Your task to perform on an android device: Open Chrome and go to settings Image 0: 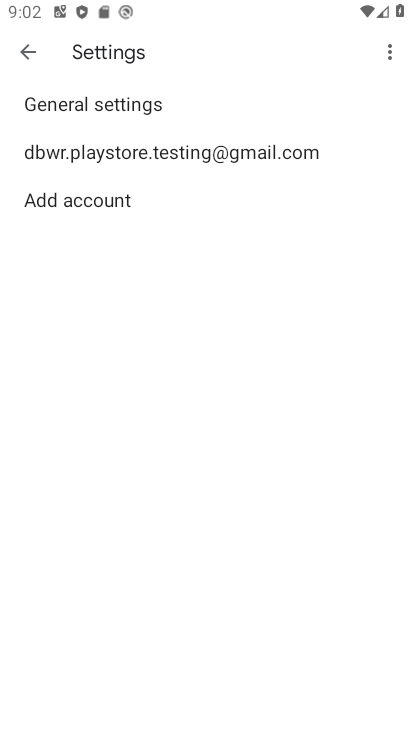
Step 0: press home button
Your task to perform on an android device: Open Chrome and go to settings Image 1: 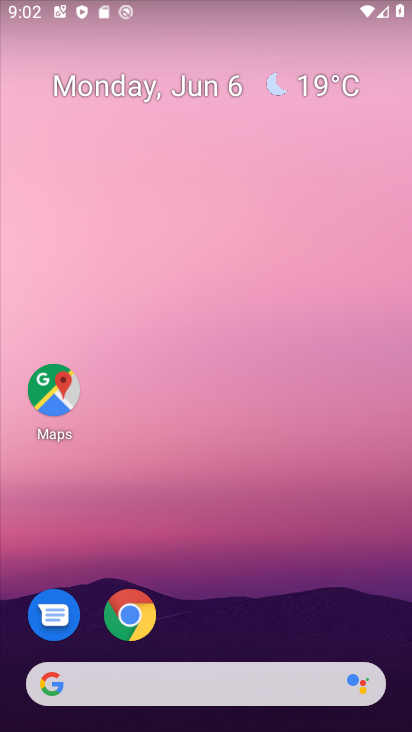
Step 1: drag from (199, 647) to (0, 233)
Your task to perform on an android device: Open Chrome and go to settings Image 2: 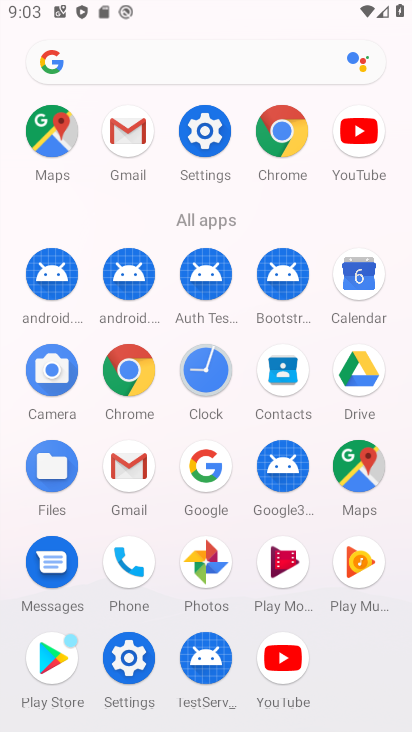
Step 2: click (122, 372)
Your task to perform on an android device: Open Chrome and go to settings Image 3: 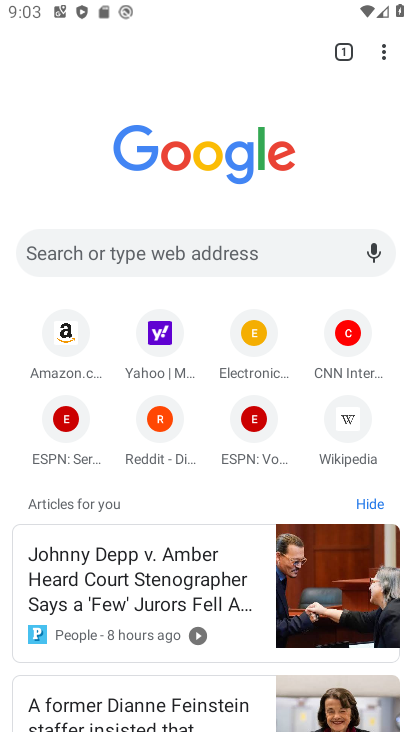
Step 3: click (379, 55)
Your task to perform on an android device: Open Chrome and go to settings Image 4: 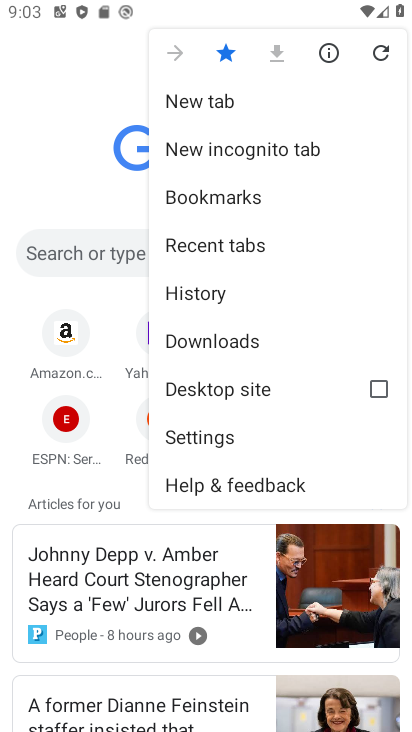
Step 4: click (231, 426)
Your task to perform on an android device: Open Chrome and go to settings Image 5: 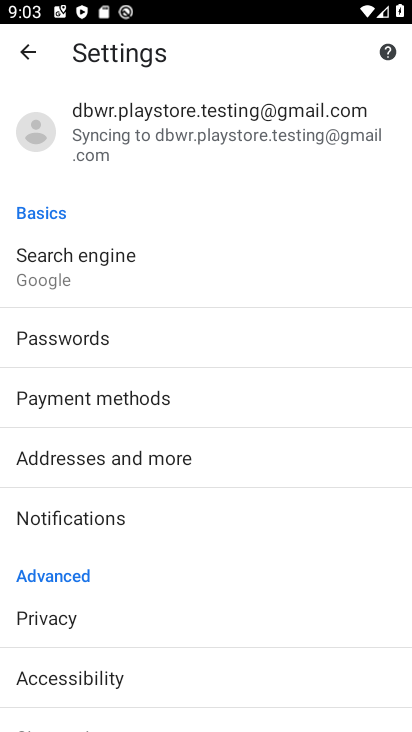
Step 5: task complete